Your task to perform on an android device: Go to battery settings Image 0: 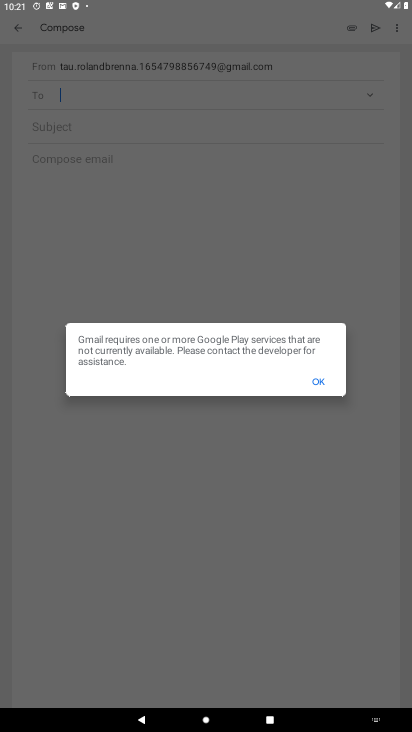
Step 0: drag from (292, 418) to (313, 355)
Your task to perform on an android device: Go to battery settings Image 1: 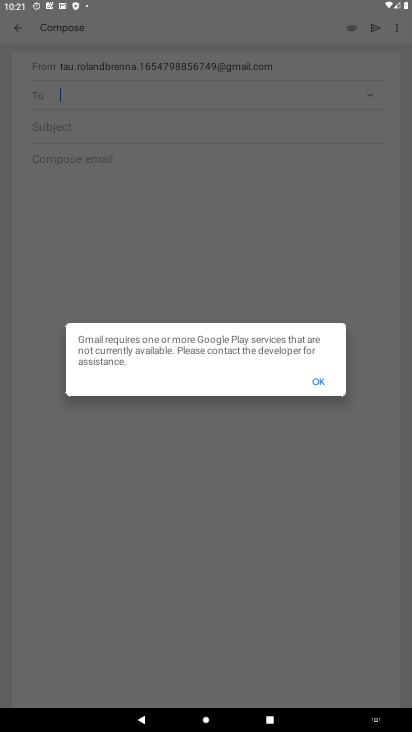
Step 1: press home button
Your task to perform on an android device: Go to battery settings Image 2: 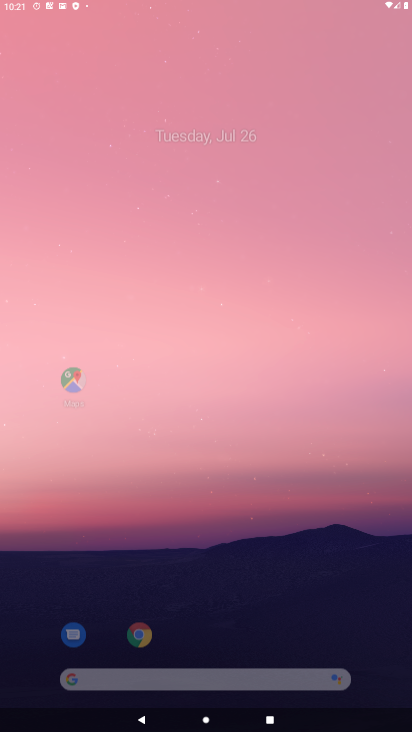
Step 2: press home button
Your task to perform on an android device: Go to battery settings Image 3: 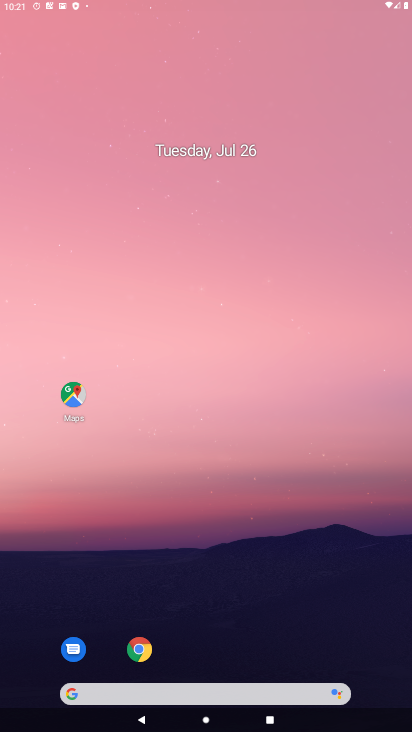
Step 3: drag from (255, 587) to (263, 178)
Your task to perform on an android device: Go to battery settings Image 4: 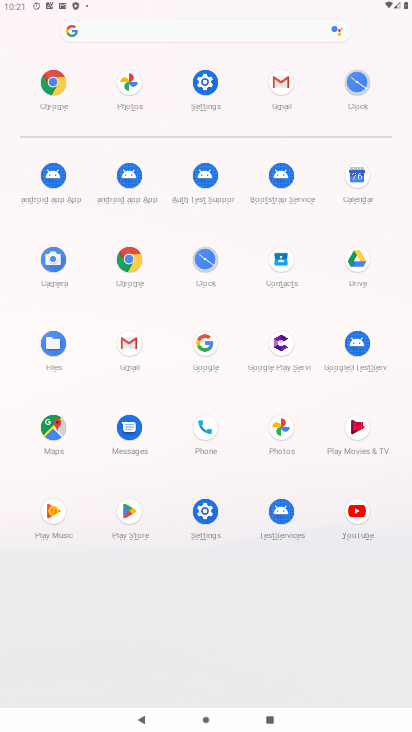
Step 4: click (209, 512)
Your task to perform on an android device: Go to battery settings Image 5: 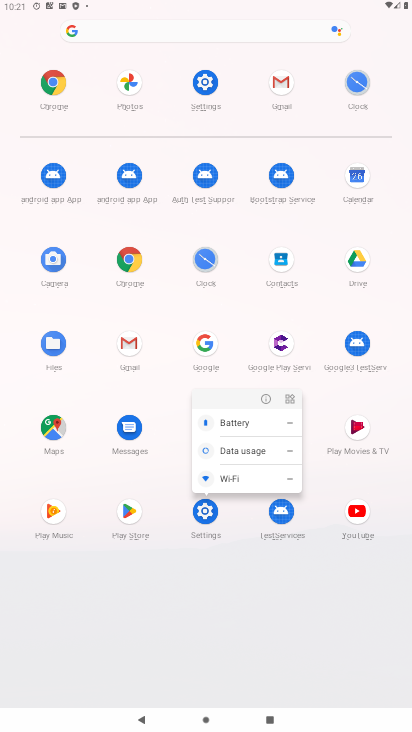
Step 5: click (261, 397)
Your task to perform on an android device: Go to battery settings Image 6: 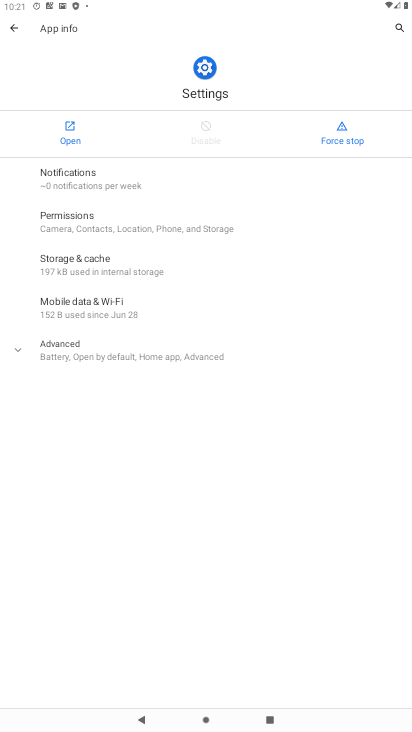
Step 6: click (64, 134)
Your task to perform on an android device: Go to battery settings Image 7: 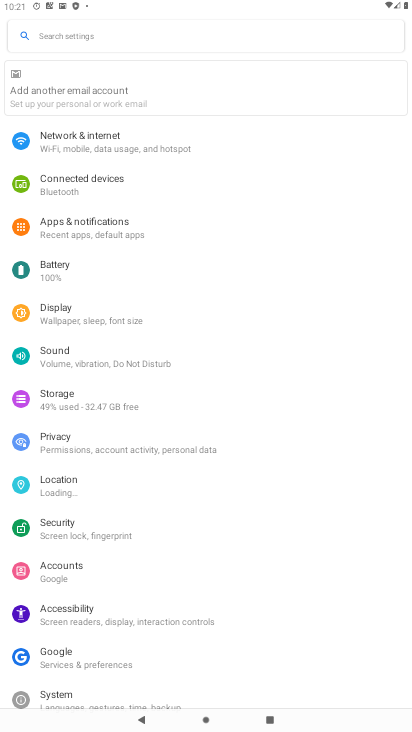
Step 7: drag from (228, 581) to (322, 243)
Your task to perform on an android device: Go to battery settings Image 8: 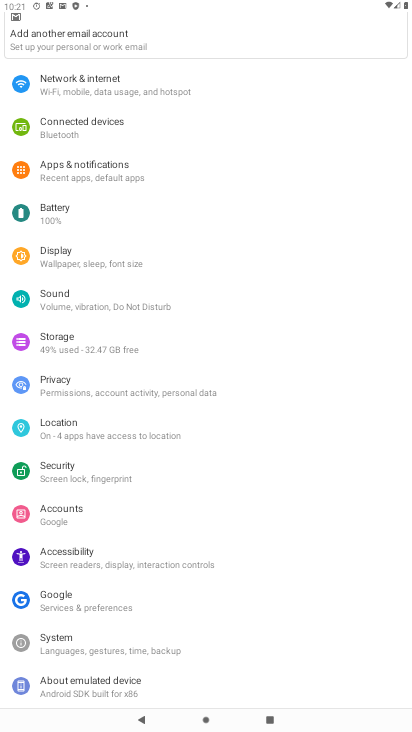
Step 8: click (76, 217)
Your task to perform on an android device: Go to battery settings Image 9: 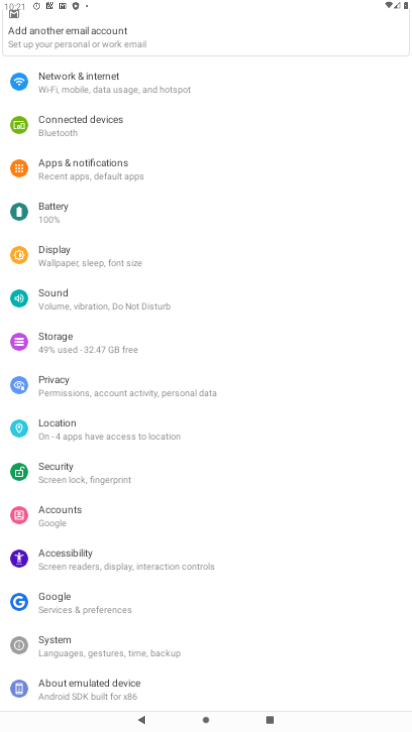
Step 9: task complete